Your task to perform on an android device: Add apple airpods pro to the cart on target.com Image 0: 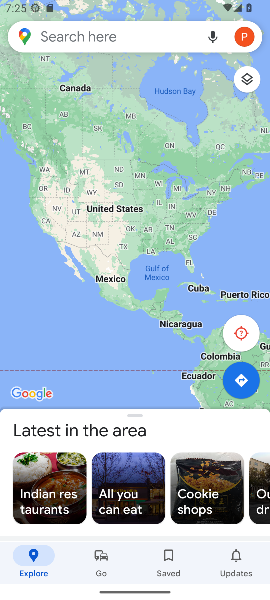
Step 0: press home button
Your task to perform on an android device: Add apple airpods pro to the cart on target.com Image 1: 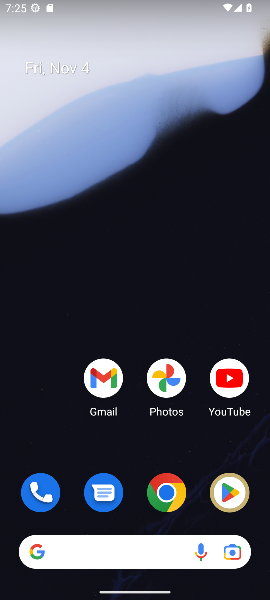
Step 1: drag from (140, 450) to (171, 57)
Your task to perform on an android device: Add apple airpods pro to the cart on target.com Image 2: 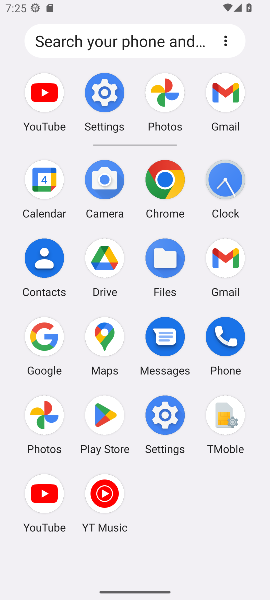
Step 2: click (162, 183)
Your task to perform on an android device: Add apple airpods pro to the cart on target.com Image 3: 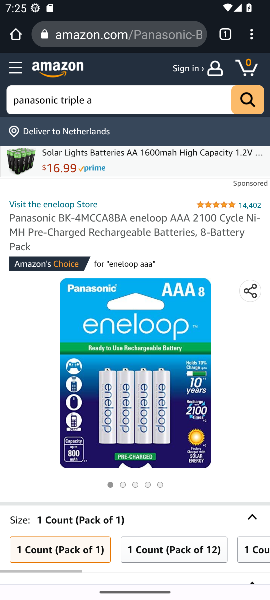
Step 3: click (130, 37)
Your task to perform on an android device: Add apple airpods pro to the cart on target.com Image 4: 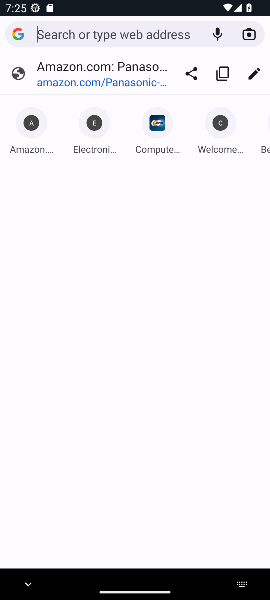
Step 4: type "target.com"
Your task to perform on an android device: Add apple airpods pro to the cart on target.com Image 5: 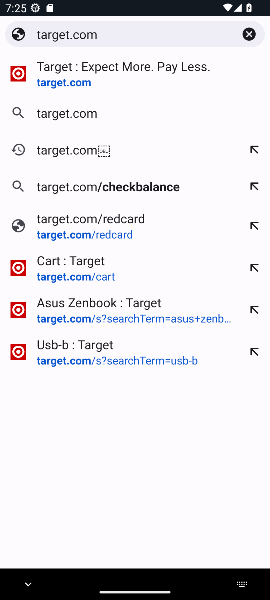
Step 5: press enter
Your task to perform on an android device: Add apple airpods pro to the cart on target.com Image 6: 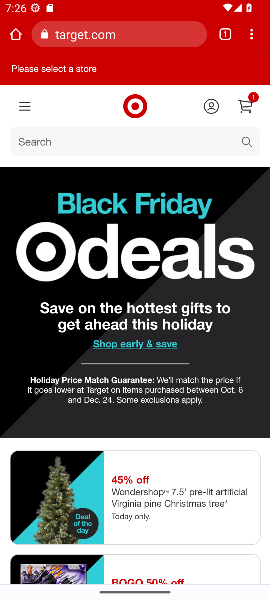
Step 6: click (184, 144)
Your task to perform on an android device: Add apple airpods pro to the cart on target.com Image 7: 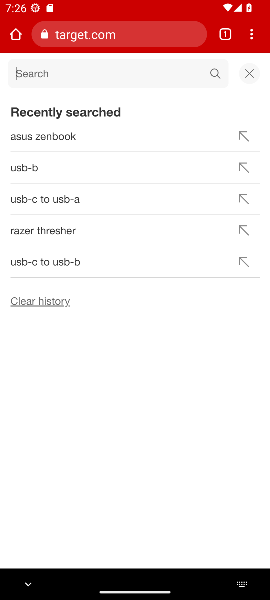
Step 7: type "apple airpods"
Your task to perform on an android device: Add apple airpods pro to the cart on target.com Image 8: 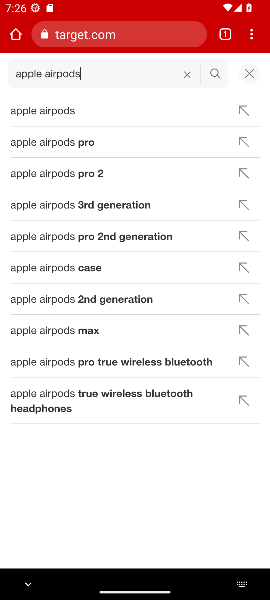
Step 8: press enter
Your task to perform on an android device: Add apple airpods pro to the cart on target.com Image 9: 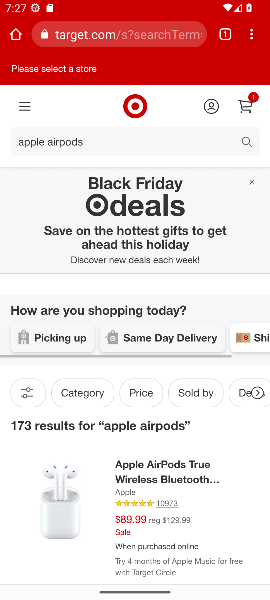
Step 9: drag from (142, 502) to (147, 266)
Your task to perform on an android device: Add apple airpods pro to the cart on target.com Image 10: 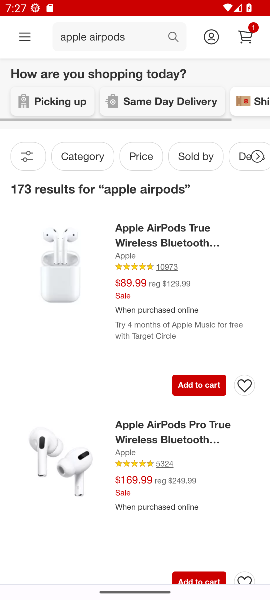
Step 10: click (205, 385)
Your task to perform on an android device: Add apple airpods pro to the cart on target.com Image 11: 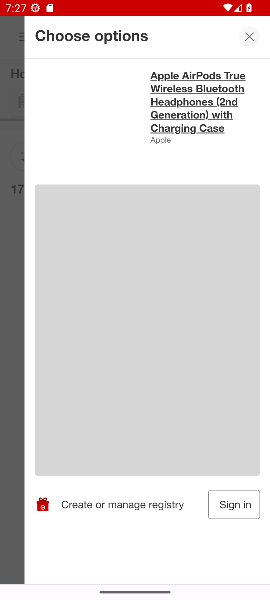
Step 11: task complete